Your task to perform on an android device: find which apps use the phone's location Image 0: 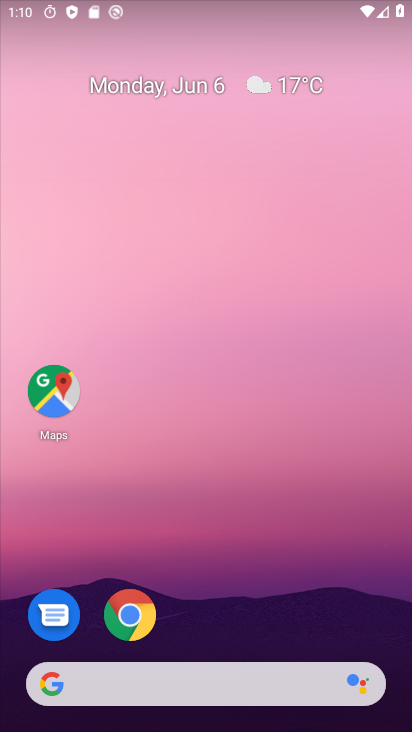
Step 0: drag from (212, 620) to (230, 223)
Your task to perform on an android device: find which apps use the phone's location Image 1: 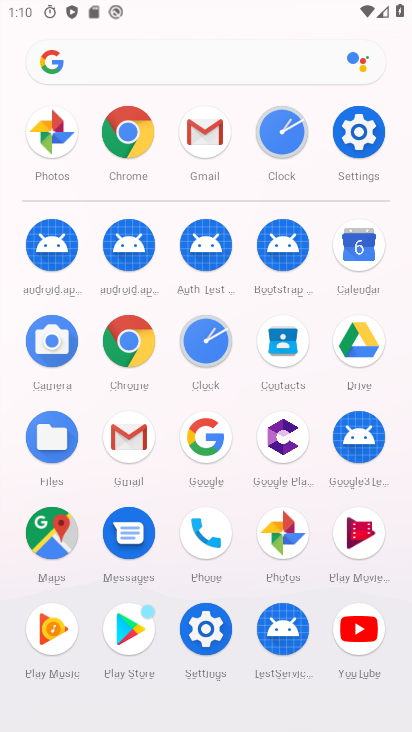
Step 1: click (360, 129)
Your task to perform on an android device: find which apps use the phone's location Image 2: 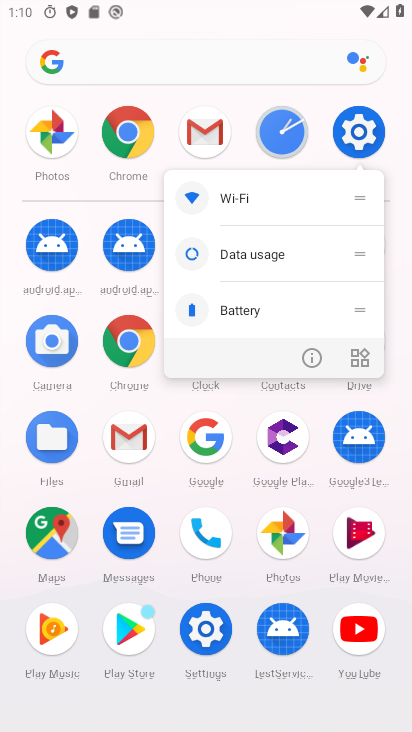
Step 2: click (313, 350)
Your task to perform on an android device: find which apps use the phone's location Image 3: 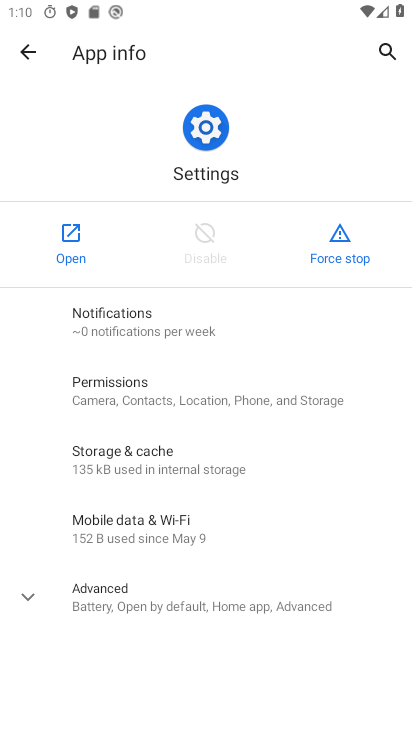
Step 3: click (34, 219)
Your task to perform on an android device: find which apps use the phone's location Image 4: 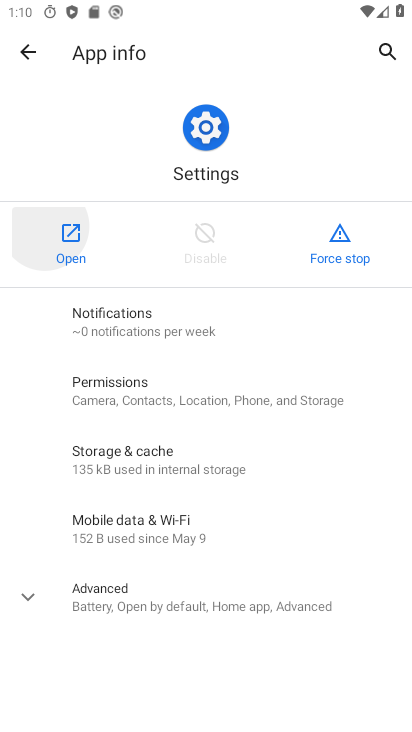
Step 4: click (59, 225)
Your task to perform on an android device: find which apps use the phone's location Image 5: 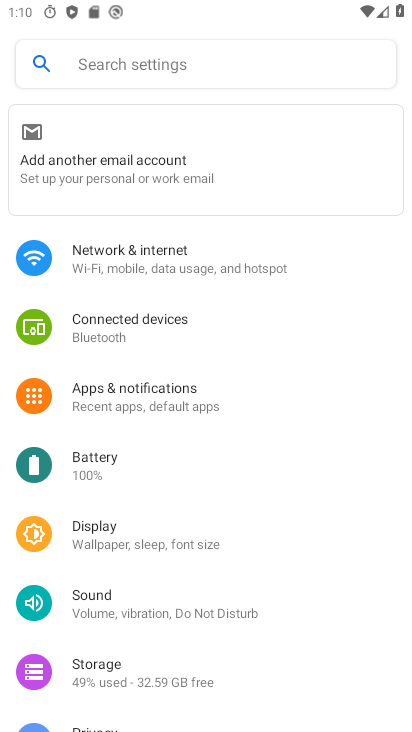
Step 5: drag from (197, 562) to (322, 244)
Your task to perform on an android device: find which apps use the phone's location Image 6: 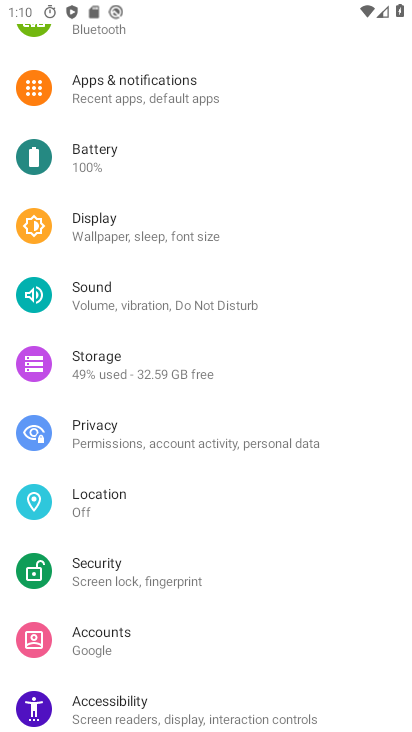
Step 6: click (121, 490)
Your task to perform on an android device: find which apps use the phone's location Image 7: 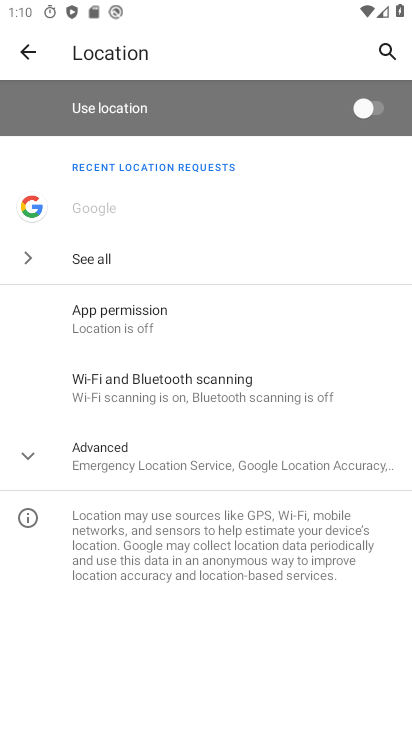
Step 7: click (199, 314)
Your task to perform on an android device: find which apps use the phone's location Image 8: 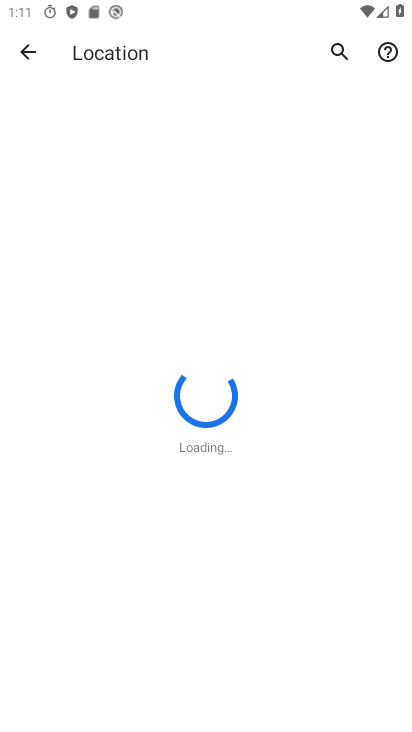
Step 8: task complete